Your task to perform on an android device: turn on priority inbox in the gmail app Image 0: 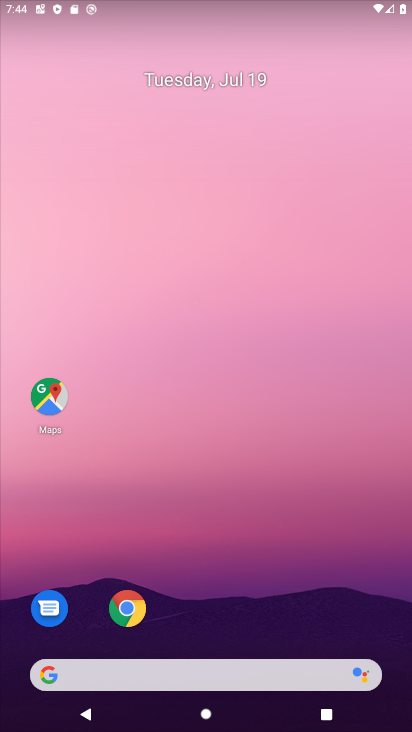
Step 0: press home button
Your task to perform on an android device: turn on priority inbox in the gmail app Image 1: 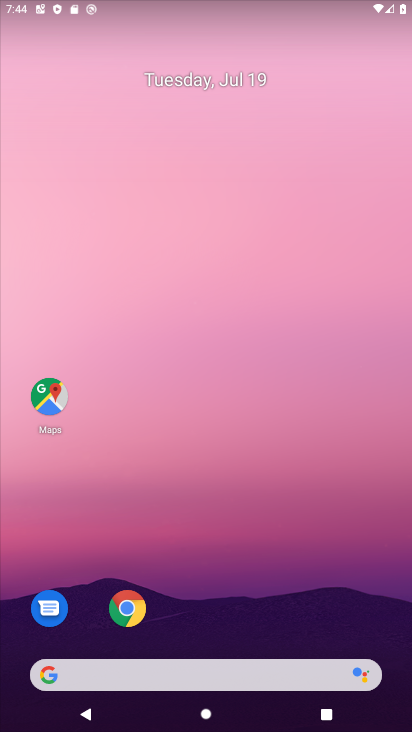
Step 1: drag from (216, 666) to (282, 165)
Your task to perform on an android device: turn on priority inbox in the gmail app Image 2: 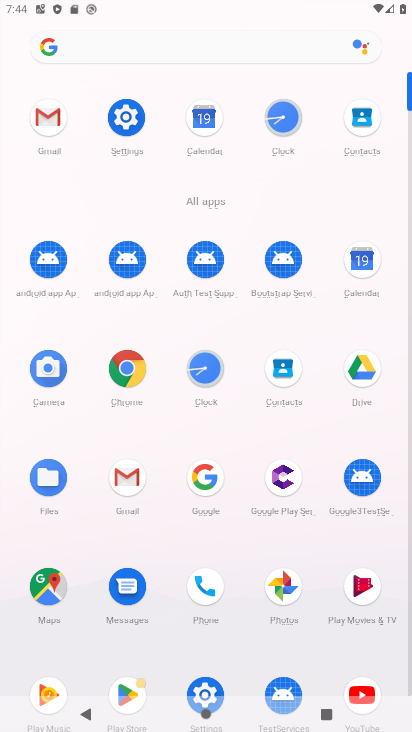
Step 2: click (131, 473)
Your task to perform on an android device: turn on priority inbox in the gmail app Image 3: 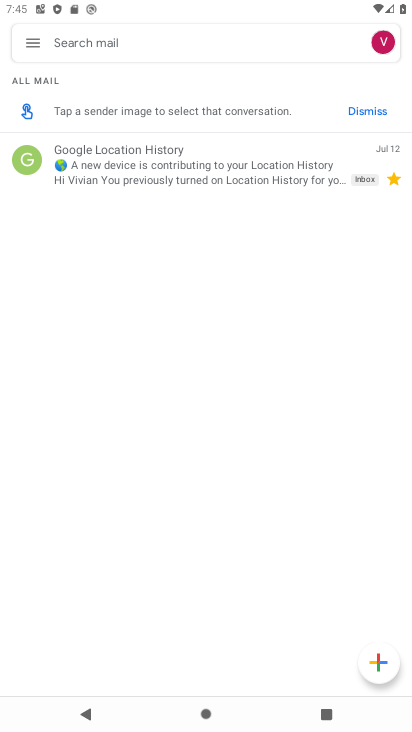
Step 3: click (31, 45)
Your task to perform on an android device: turn on priority inbox in the gmail app Image 4: 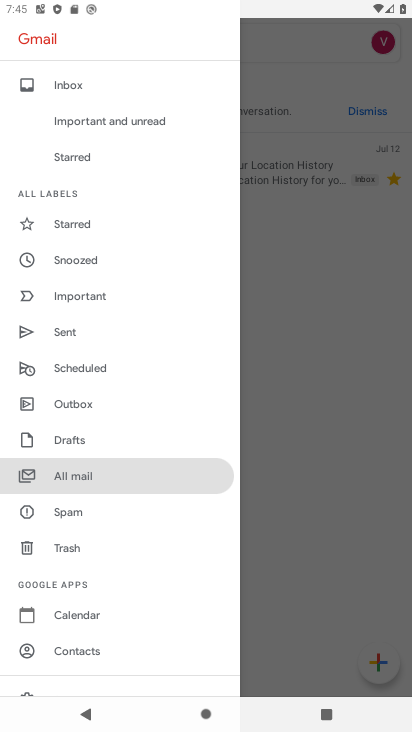
Step 4: drag from (125, 586) to (190, 127)
Your task to perform on an android device: turn on priority inbox in the gmail app Image 5: 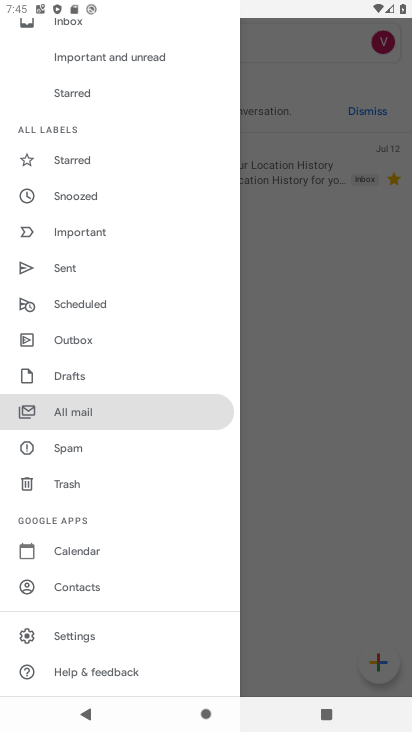
Step 5: click (84, 636)
Your task to perform on an android device: turn on priority inbox in the gmail app Image 6: 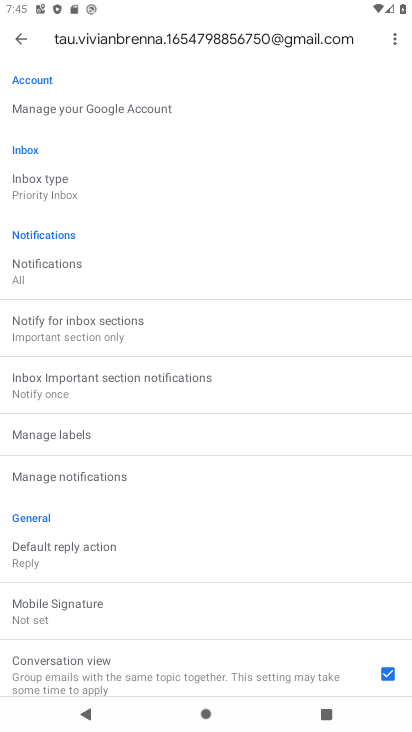
Step 6: click (42, 179)
Your task to perform on an android device: turn on priority inbox in the gmail app Image 7: 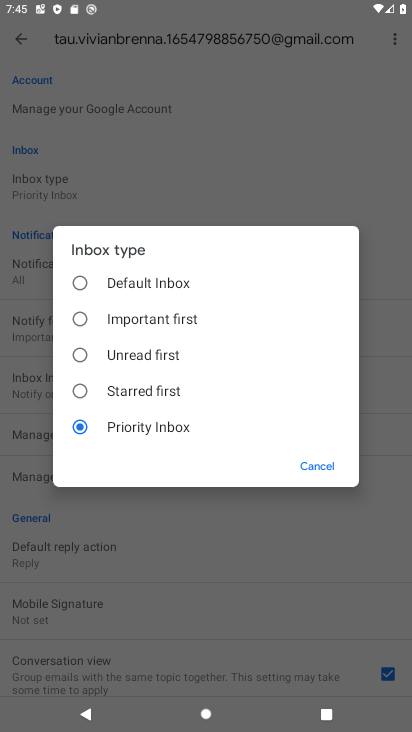
Step 7: task complete